Your task to perform on an android device: When is my next appointment? Image 0: 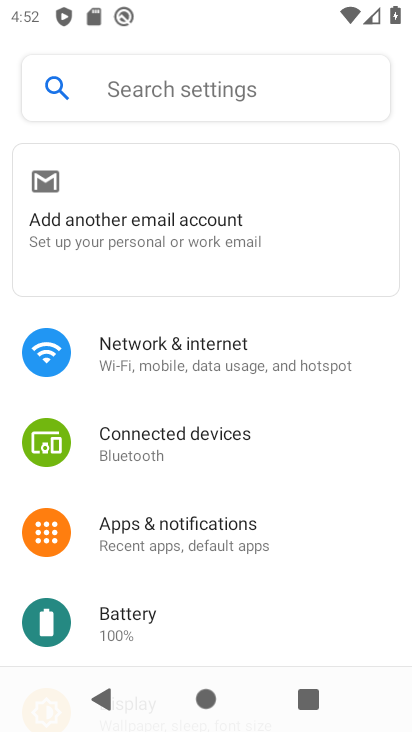
Step 0: press home button
Your task to perform on an android device: When is my next appointment? Image 1: 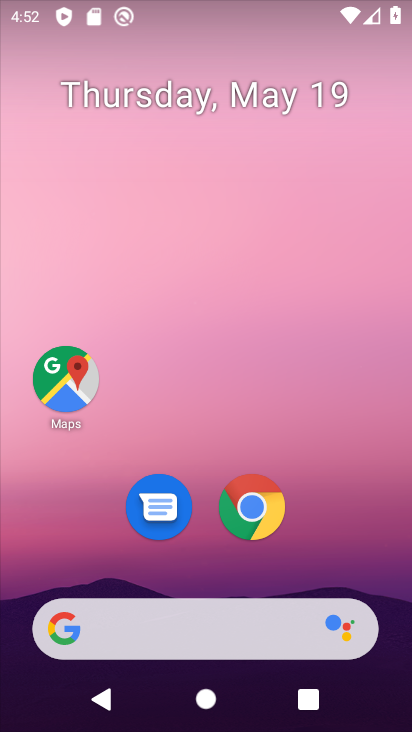
Step 1: drag from (236, 587) to (350, 68)
Your task to perform on an android device: When is my next appointment? Image 2: 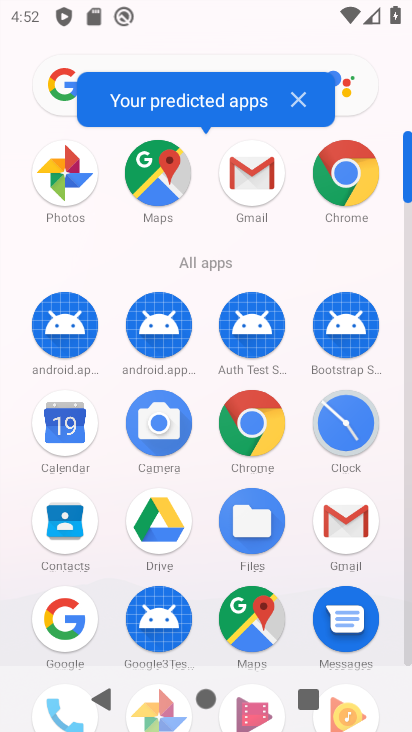
Step 2: click (68, 416)
Your task to perform on an android device: When is my next appointment? Image 3: 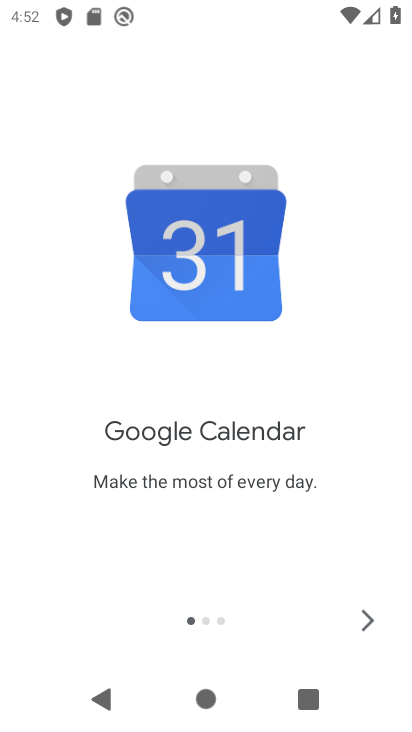
Step 3: click (358, 616)
Your task to perform on an android device: When is my next appointment? Image 4: 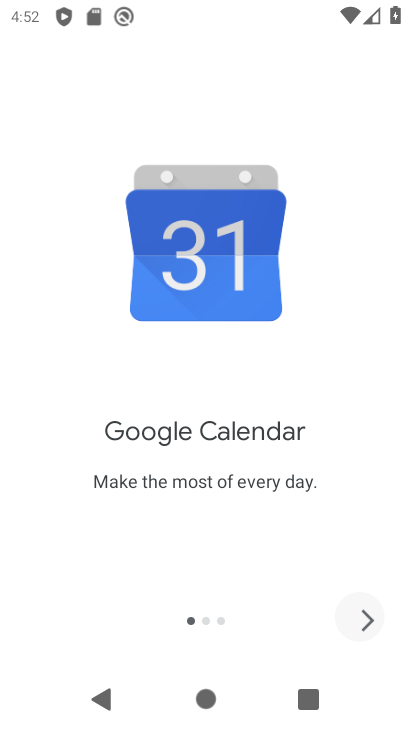
Step 4: click (358, 616)
Your task to perform on an android device: When is my next appointment? Image 5: 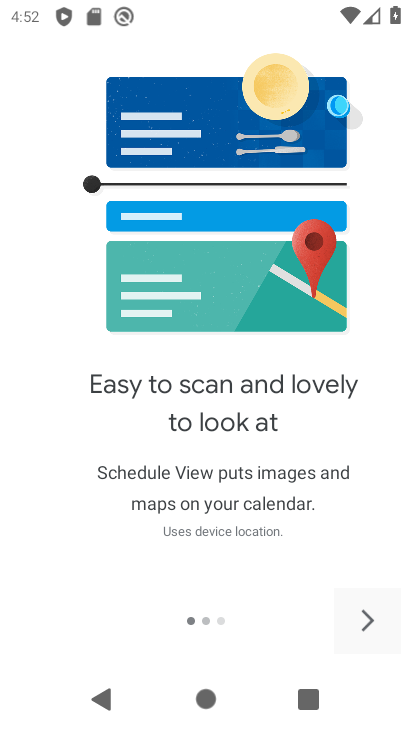
Step 5: click (358, 616)
Your task to perform on an android device: When is my next appointment? Image 6: 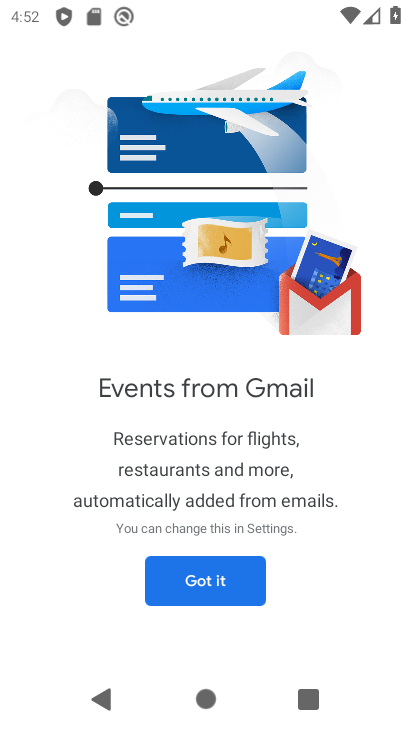
Step 6: click (358, 616)
Your task to perform on an android device: When is my next appointment? Image 7: 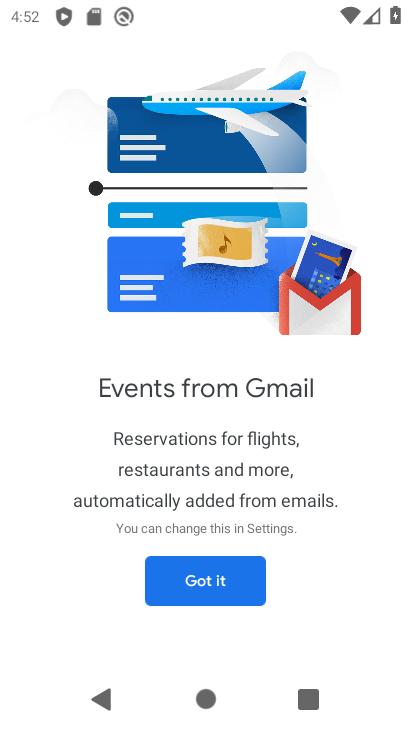
Step 7: click (171, 561)
Your task to perform on an android device: When is my next appointment? Image 8: 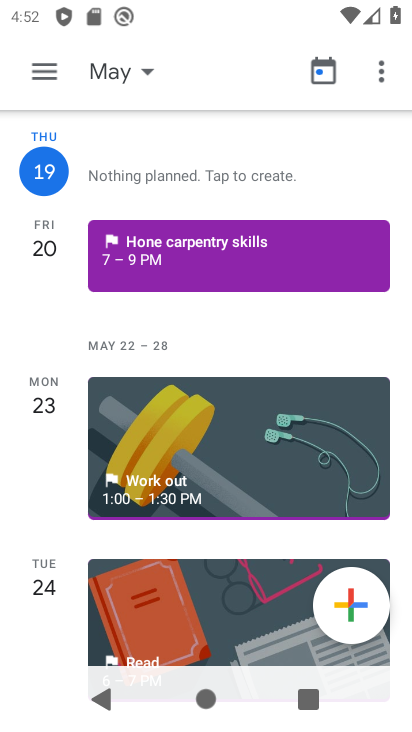
Step 8: click (214, 268)
Your task to perform on an android device: When is my next appointment? Image 9: 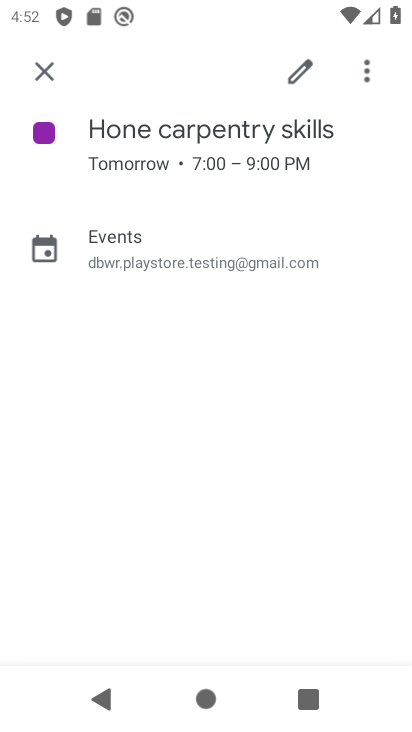
Step 9: task complete